Your task to perform on an android device: star an email in the gmail app Image 0: 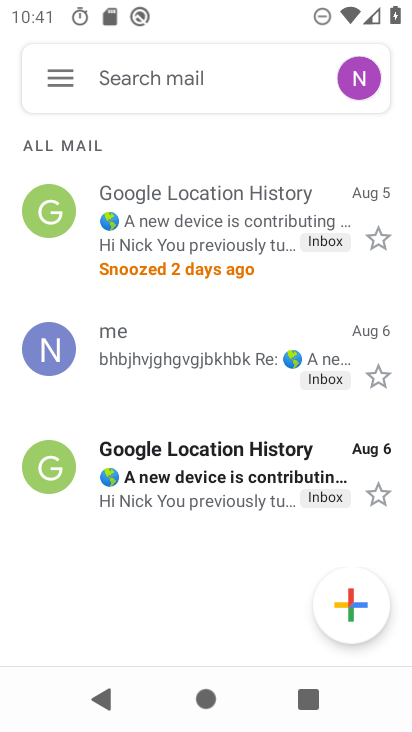
Step 0: click (381, 235)
Your task to perform on an android device: star an email in the gmail app Image 1: 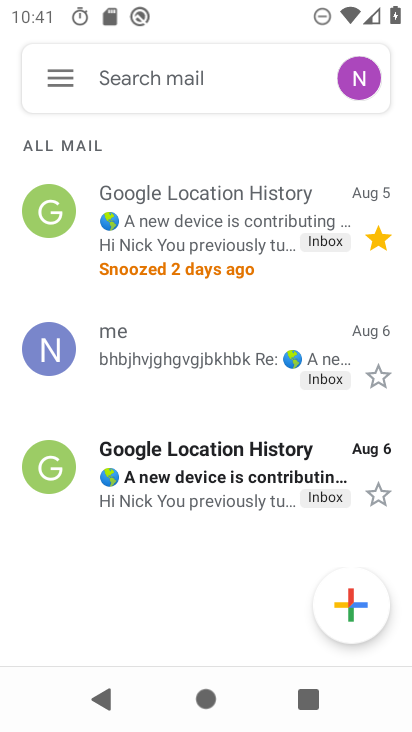
Step 1: task complete